Your task to perform on an android device: open device folders in google photos Image 0: 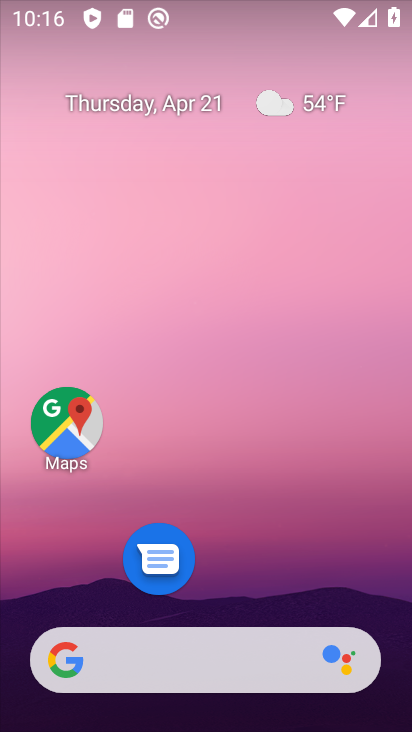
Step 0: drag from (241, 527) to (261, 68)
Your task to perform on an android device: open device folders in google photos Image 1: 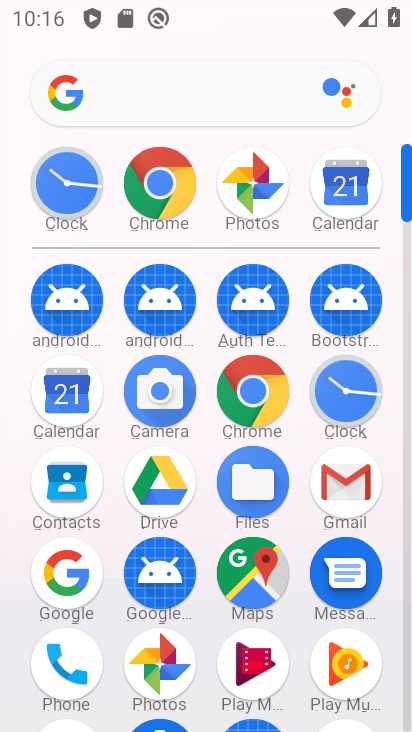
Step 1: click (166, 645)
Your task to perform on an android device: open device folders in google photos Image 2: 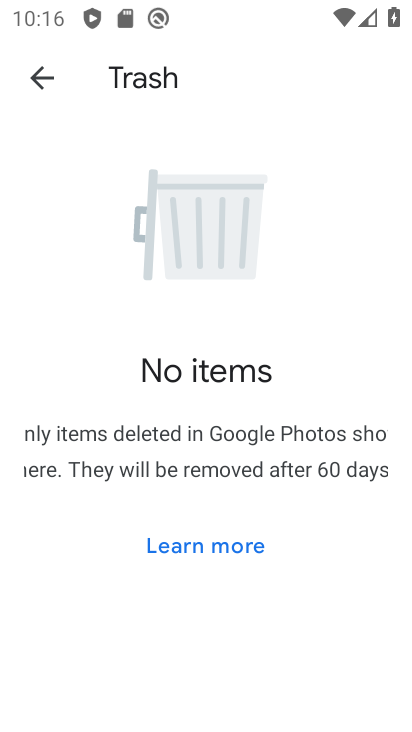
Step 2: click (39, 68)
Your task to perform on an android device: open device folders in google photos Image 3: 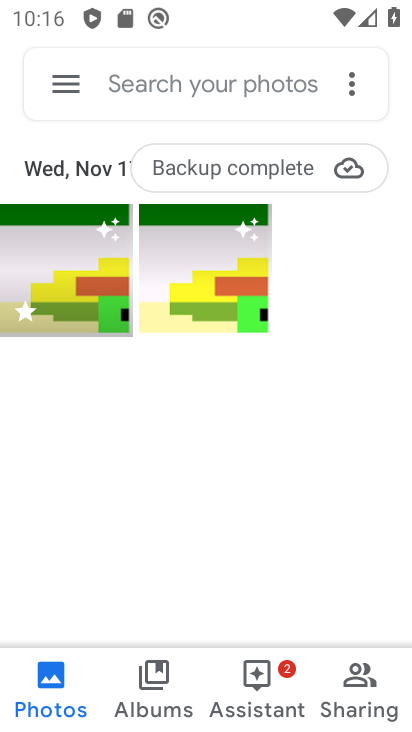
Step 3: click (62, 85)
Your task to perform on an android device: open device folders in google photos Image 4: 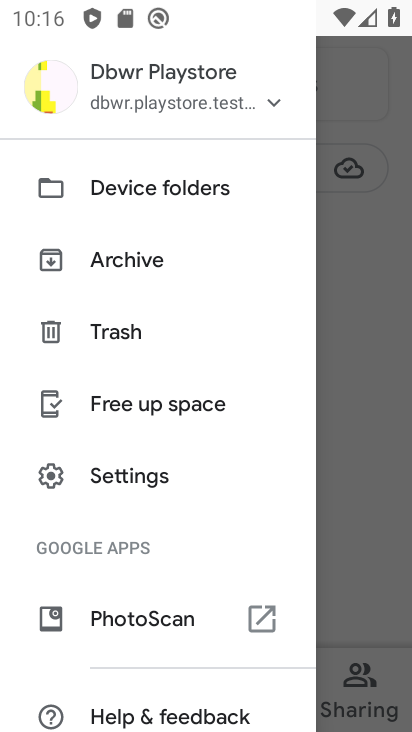
Step 4: click (161, 200)
Your task to perform on an android device: open device folders in google photos Image 5: 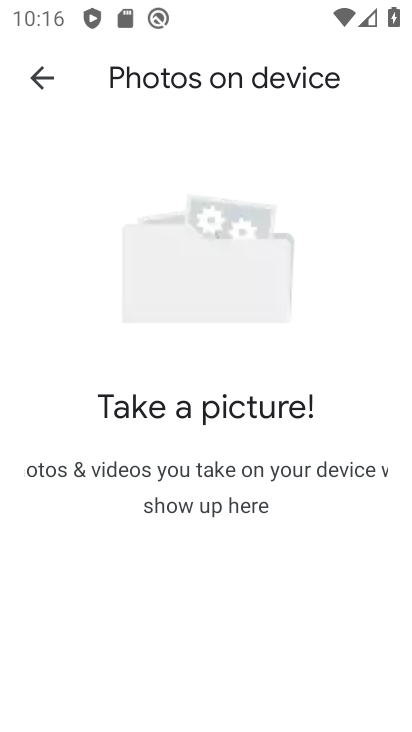
Step 5: task complete